Your task to perform on an android device: Open display settings Image 0: 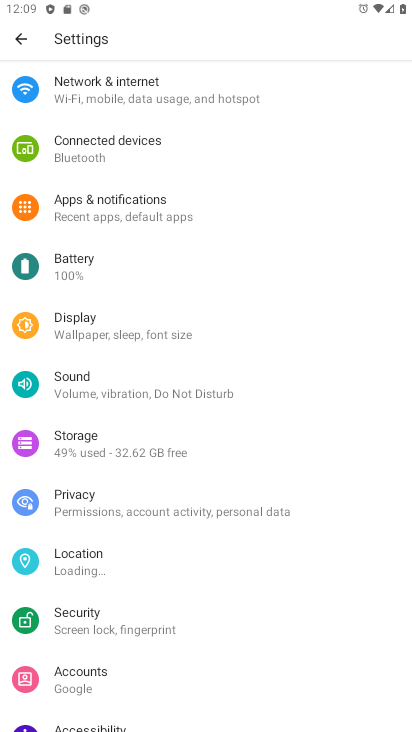
Step 0: click (123, 336)
Your task to perform on an android device: Open display settings Image 1: 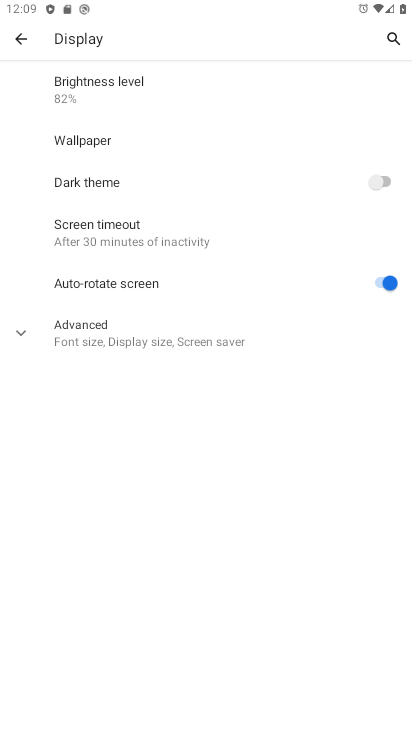
Step 1: click (123, 336)
Your task to perform on an android device: Open display settings Image 2: 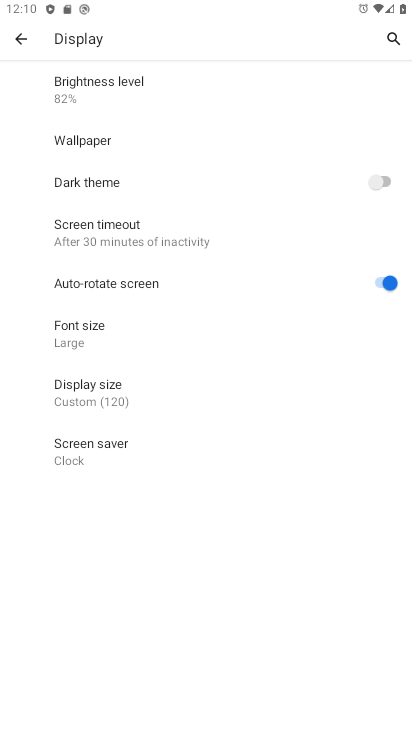
Step 2: task complete